Your task to perform on an android device: Go to accessibility settings Image 0: 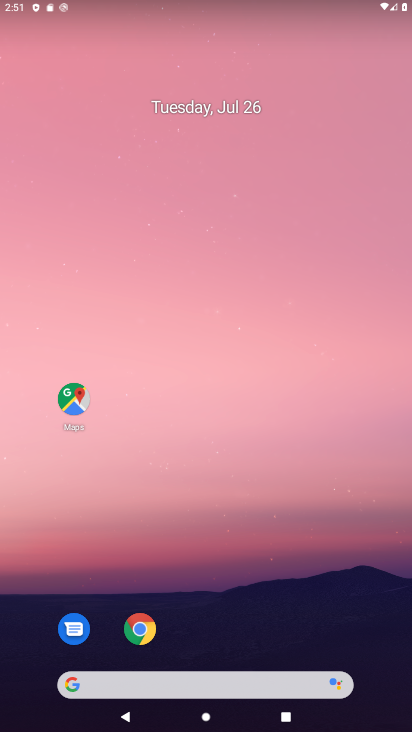
Step 0: drag from (391, 700) to (192, 48)
Your task to perform on an android device: Go to accessibility settings Image 1: 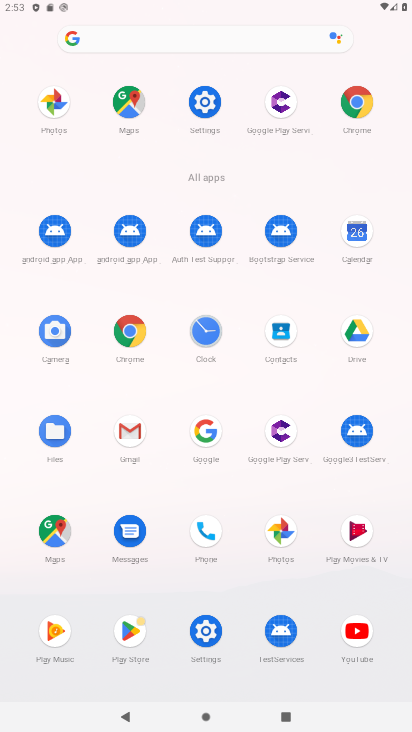
Step 1: click (180, 629)
Your task to perform on an android device: Go to accessibility settings Image 2: 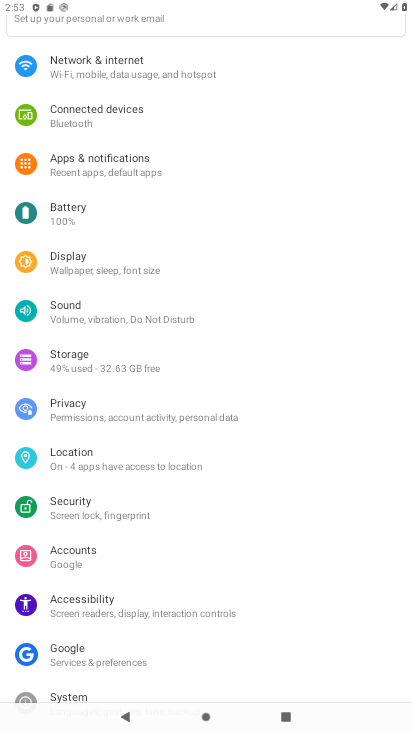
Step 2: click (86, 601)
Your task to perform on an android device: Go to accessibility settings Image 3: 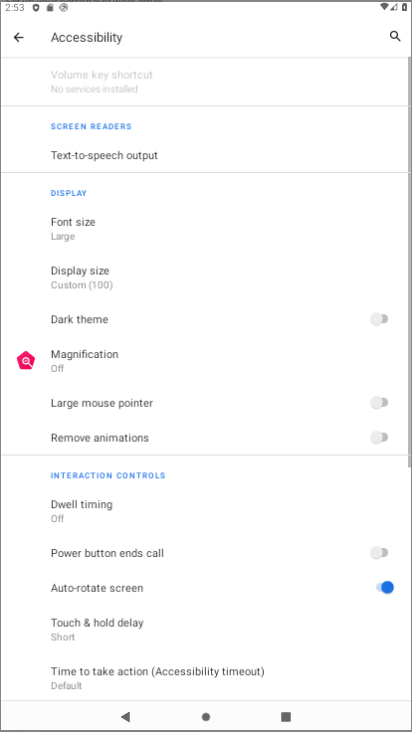
Step 3: task complete